Your task to perform on an android device: Search for seafood restaurants on Google Maps Image 0: 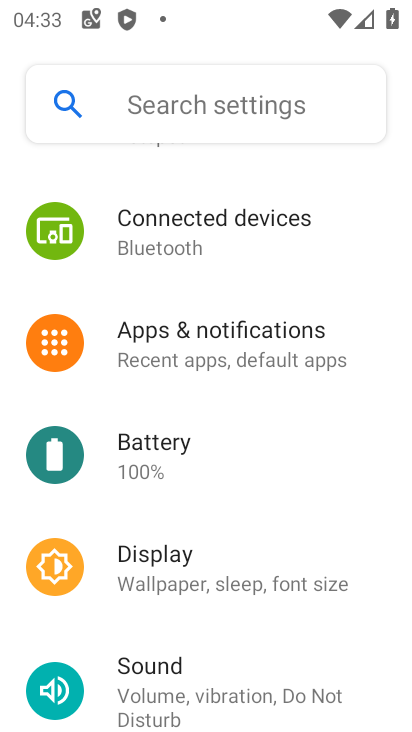
Step 0: press home button
Your task to perform on an android device: Search for seafood restaurants on Google Maps Image 1: 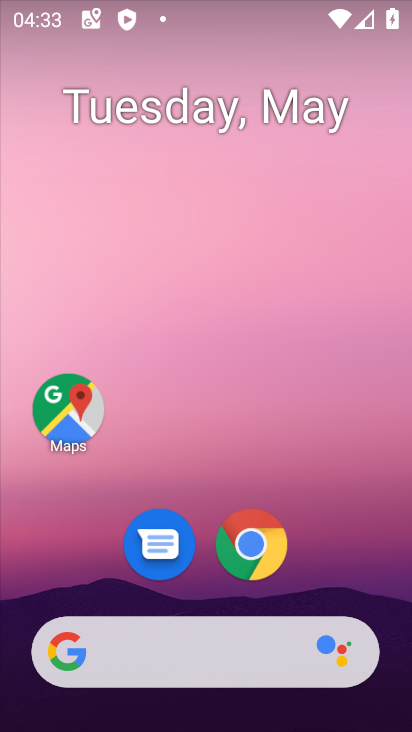
Step 1: click (56, 409)
Your task to perform on an android device: Search for seafood restaurants on Google Maps Image 2: 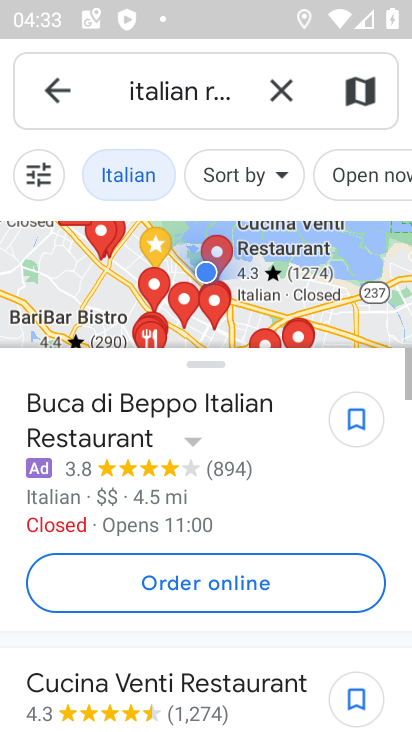
Step 2: click (65, 412)
Your task to perform on an android device: Search for seafood restaurants on Google Maps Image 3: 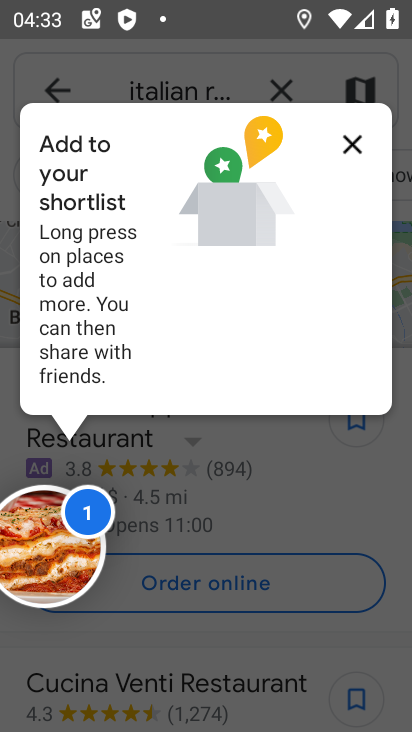
Step 3: click (352, 148)
Your task to perform on an android device: Search for seafood restaurants on Google Maps Image 4: 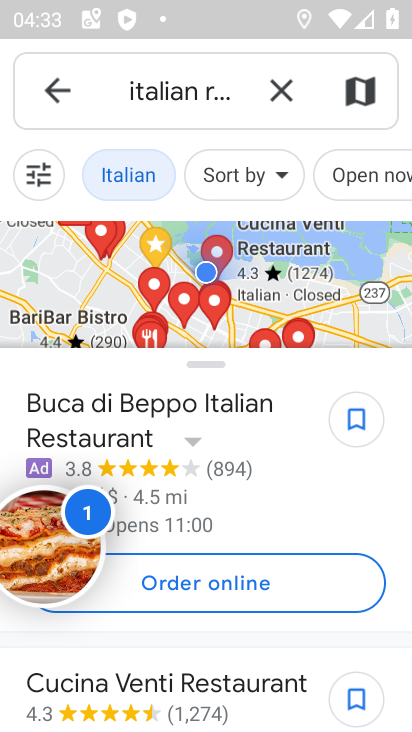
Step 4: click (272, 93)
Your task to perform on an android device: Search for seafood restaurants on Google Maps Image 5: 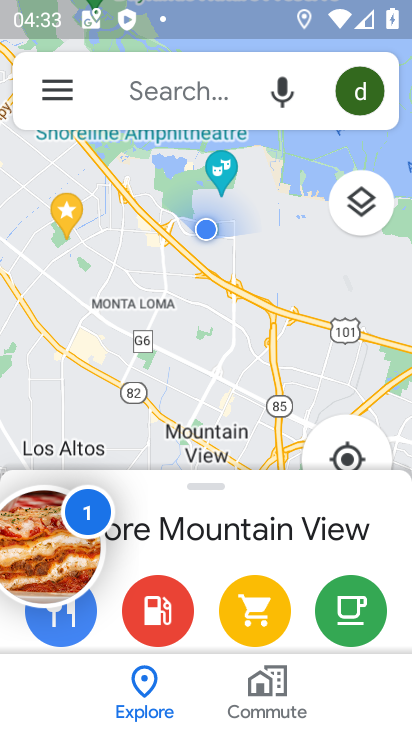
Step 5: click (145, 100)
Your task to perform on an android device: Search for seafood restaurants on Google Maps Image 6: 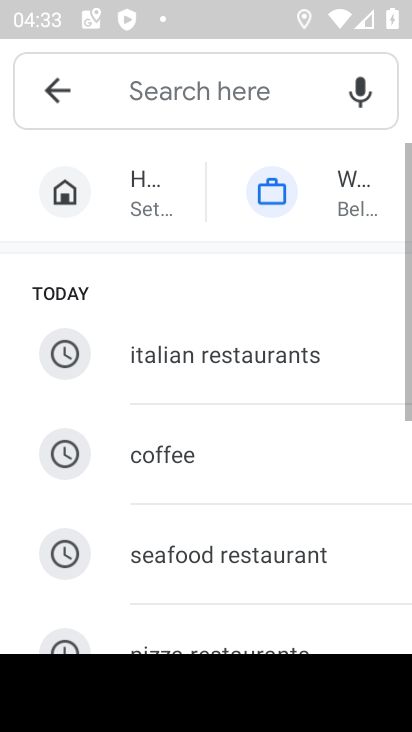
Step 6: click (161, 551)
Your task to perform on an android device: Search for seafood restaurants on Google Maps Image 7: 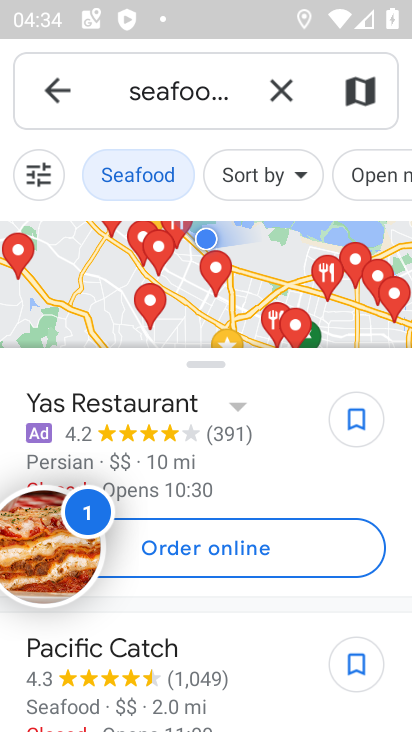
Step 7: task complete